Your task to perform on an android device: open app "Nova Launcher" (install if not already installed), go to login, and select forgot password Image 0: 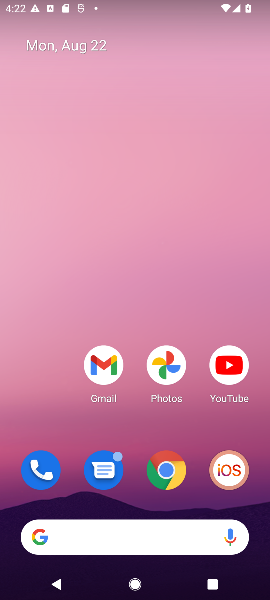
Step 0: drag from (121, 523) to (124, 210)
Your task to perform on an android device: open app "Nova Launcher" (install if not already installed), go to login, and select forgot password Image 1: 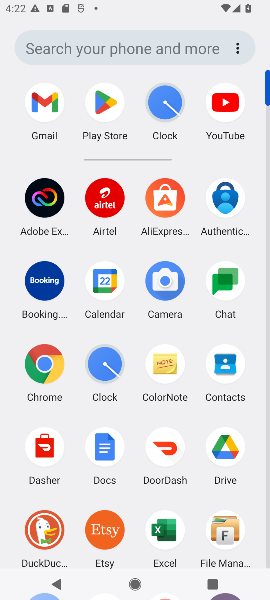
Step 1: click (104, 105)
Your task to perform on an android device: open app "Nova Launcher" (install if not already installed), go to login, and select forgot password Image 2: 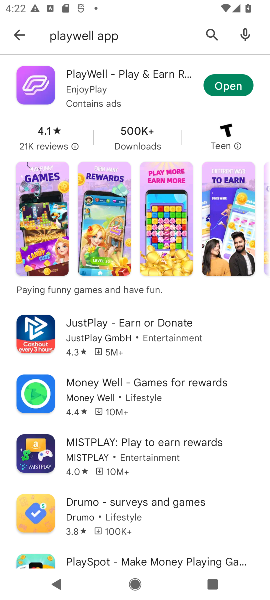
Step 2: click (46, 20)
Your task to perform on an android device: open app "Nova Launcher" (install if not already installed), go to login, and select forgot password Image 3: 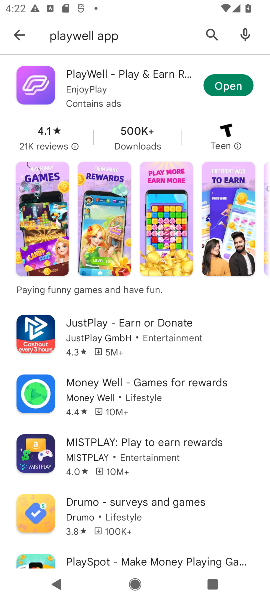
Step 3: click (4, 37)
Your task to perform on an android device: open app "Nova Launcher" (install if not already installed), go to login, and select forgot password Image 4: 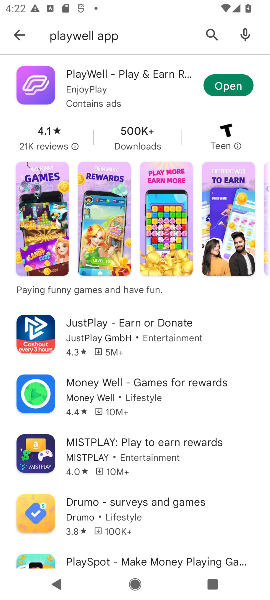
Step 4: click (11, 34)
Your task to perform on an android device: open app "Nova Launcher" (install if not already installed), go to login, and select forgot password Image 5: 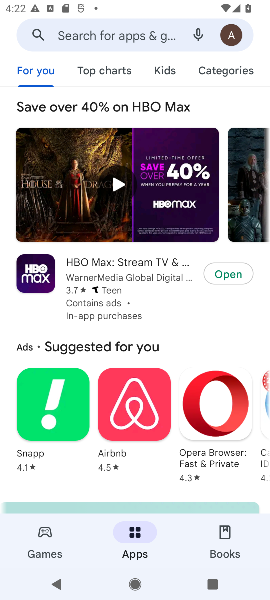
Step 5: click (93, 36)
Your task to perform on an android device: open app "Nova Launcher" (install if not already installed), go to login, and select forgot password Image 6: 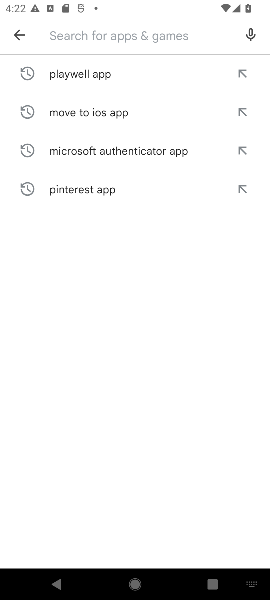
Step 6: type "Nova Launcher "
Your task to perform on an android device: open app "Nova Launcher" (install if not already installed), go to login, and select forgot password Image 7: 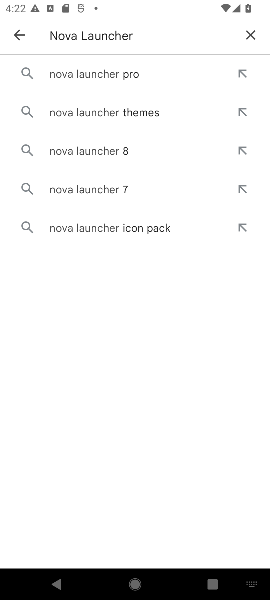
Step 7: click (114, 73)
Your task to perform on an android device: open app "Nova Launcher" (install if not already installed), go to login, and select forgot password Image 8: 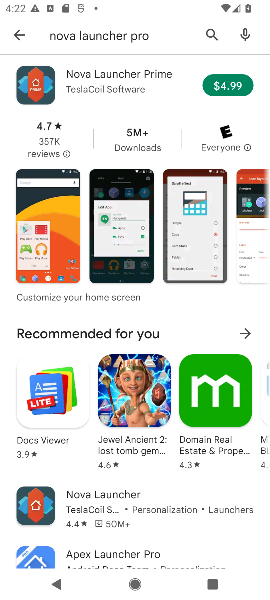
Step 8: task complete